Your task to perform on an android device: turn smart compose on in the gmail app Image 0: 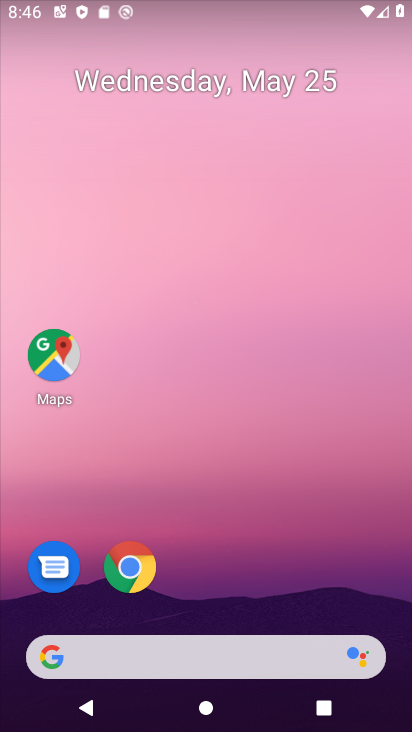
Step 0: click (232, 592)
Your task to perform on an android device: turn smart compose on in the gmail app Image 1: 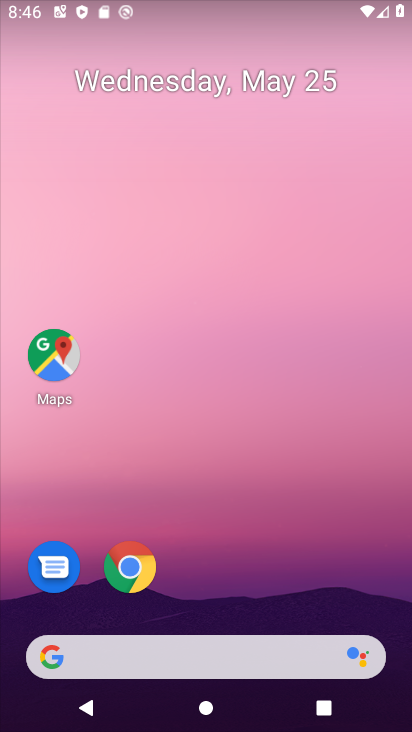
Step 1: drag from (232, 592) to (151, 141)
Your task to perform on an android device: turn smart compose on in the gmail app Image 2: 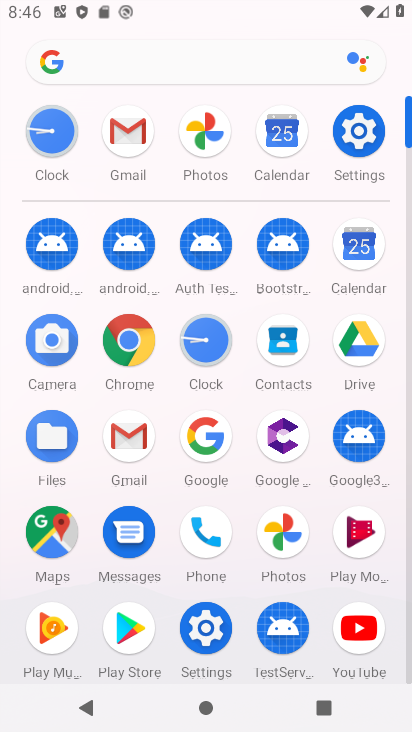
Step 2: click (141, 149)
Your task to perform on an android device: turn smart compose on in the gmail app Image 3: 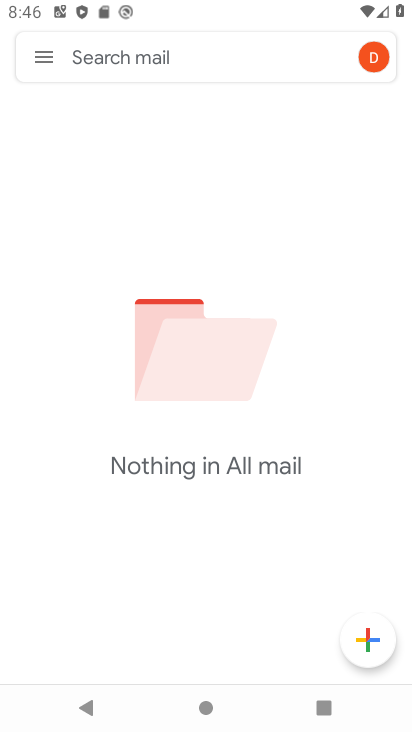
Step 3: click (51, 60)
Your task to perform on an android device: turn smart compose on in the gmail app Image 4: 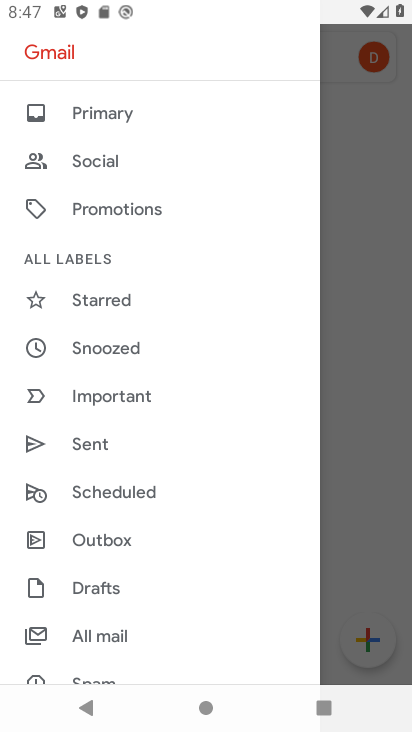
Step 4: drag from (180, 600) to (239, 249)
Your task to perform on an android device: turn smart compose on in the gmail app Image 5: 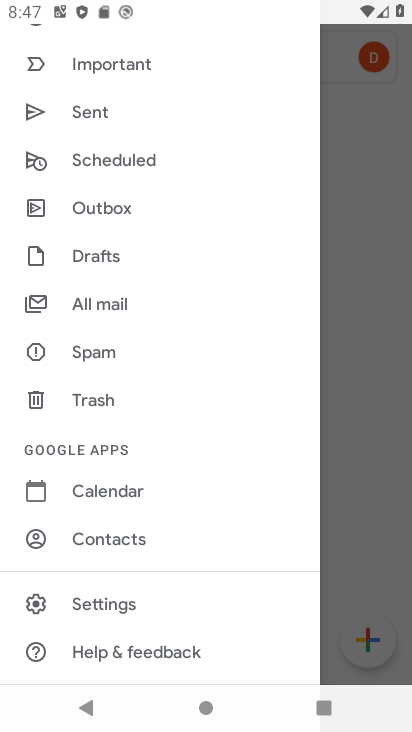
Step 5: click (133, 625)
Your task to perform on an android device: turn smart compose on in the gmail app Image 6: 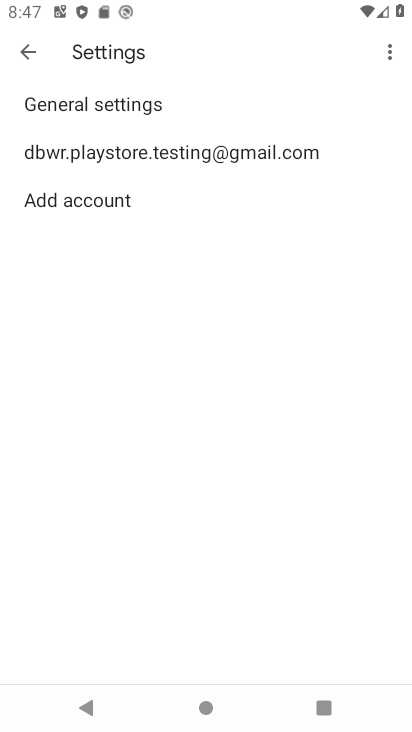
Step 6: click (71, 158)
Your task to perform on an android device: turn smart compose on in the gmail app Image 7: 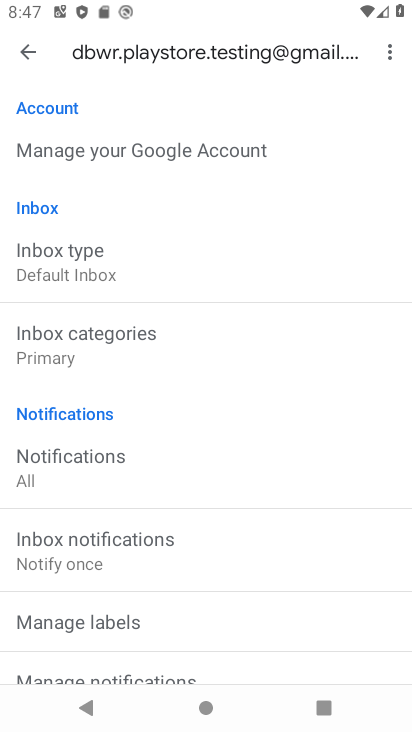
Step 7: drag from (89, 539) to (145, 189)
Your task to perform on an android device: turn smart compose on in the gmail app Image 8: 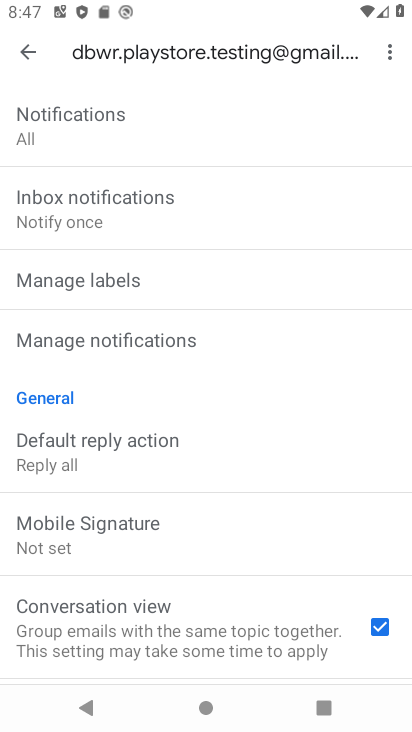
Step 8: drag from (172, 565) to (190, 304)
Your task to perform on an android device: turn smart compose on in the gmail app Image 9: 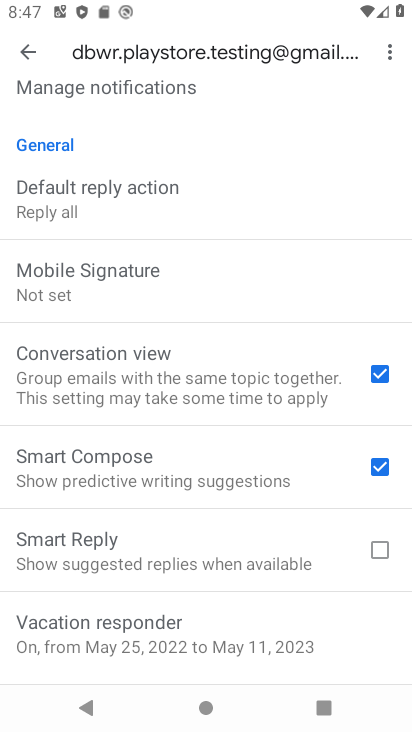
Step 9: click (373, 477)
Your task to perform on an android device: turn smart compose on in the gmail app Image 10: 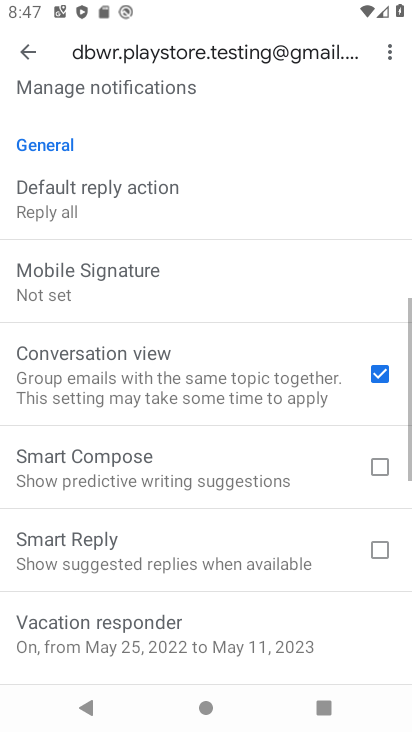
Step 10: task complete